Your task to perform on an android device: turn off notifications in google photos Image 0: 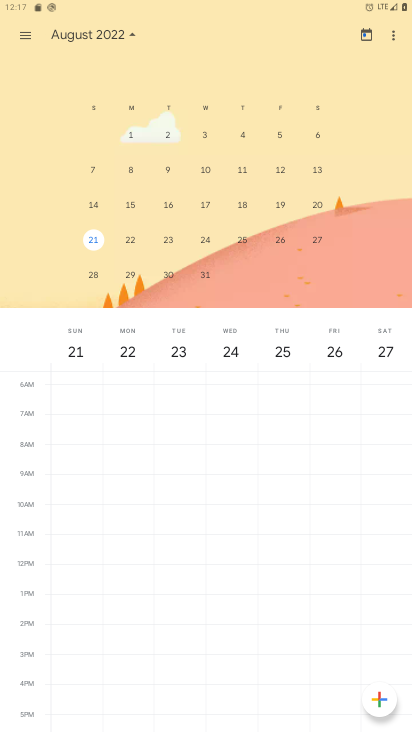
Step 0: press home button
Your task to perform on an android device: turn off notifications in google photos Image 1: 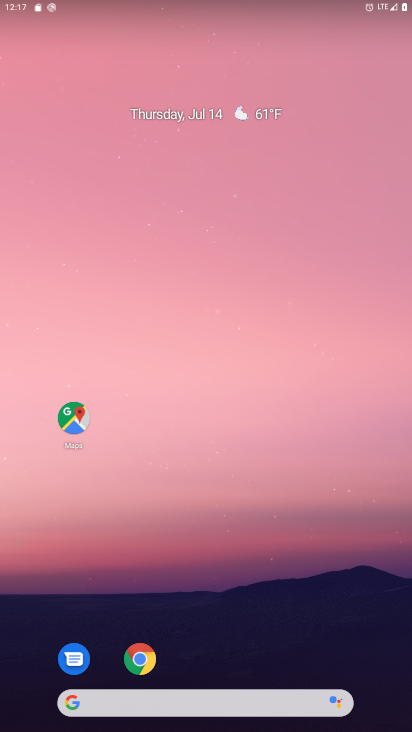
Step 1: drag from (212, 675) to (210, 125)
Your task to perform on an android device: turn off notifications in google photos Image 2: 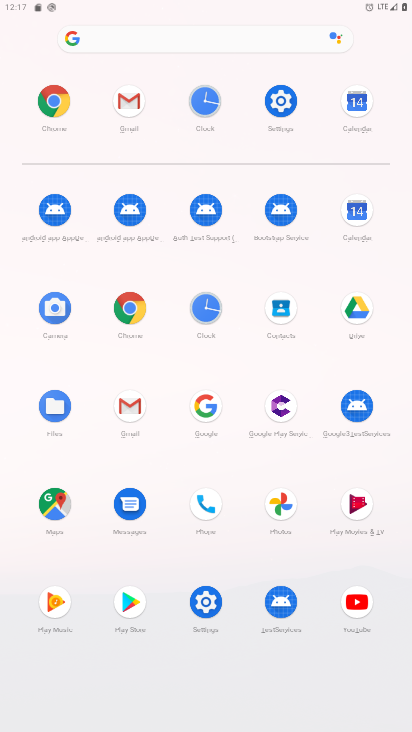
Step 2: click (281, 499)
Your task to perform on an android device: turn off notifications in google photos Image 3: 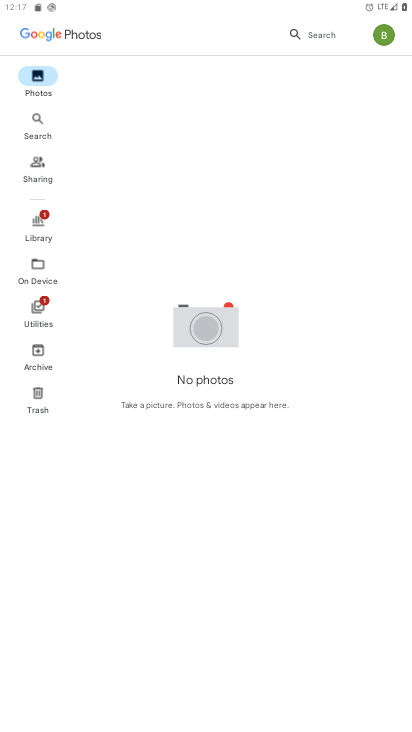
Step 3: click (386, 30)
Your task to perform on an android device: turn off notifications in google photos Image 4: 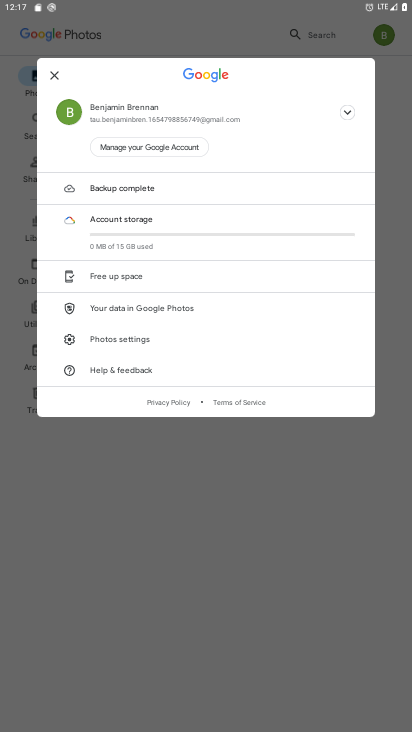
Step 4: click (130, 341)
Your task to perform on an android device: turn off notifications in google photos Image 5: 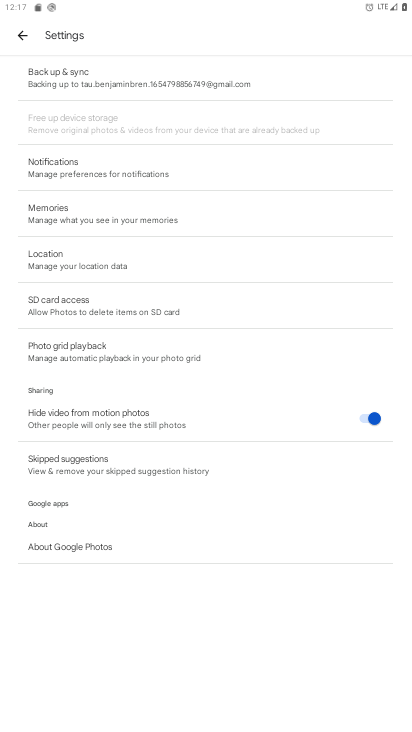
Step 5: click (86, 158)
Your task to perform on an android device: turn off notifications in google photos Image 6: 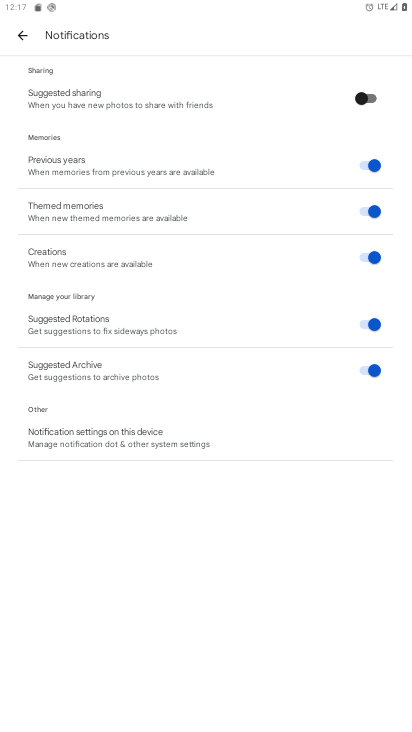
Step 6: click (188, 442)
Your task to perform on an android device: turn off notifications in google photos Image 7: 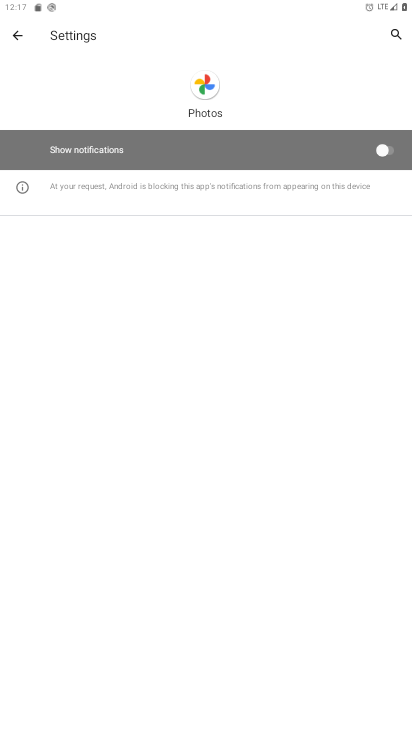
Step 7: task complete